Your task to perform on an android device: check battery use Image 0: 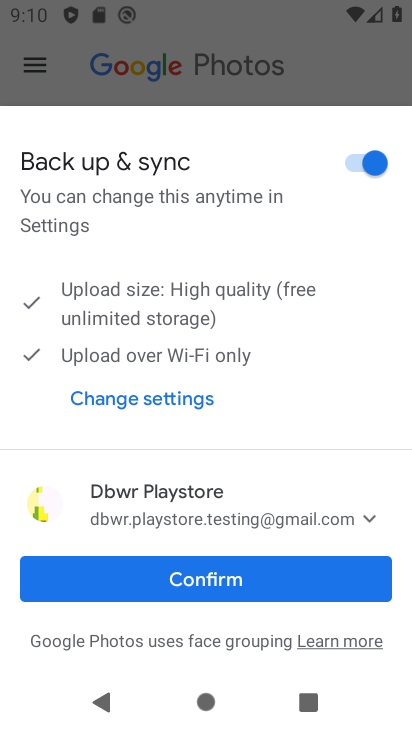
Step 0: press home button
Your task to perform on an android device: check battery use Image 1: 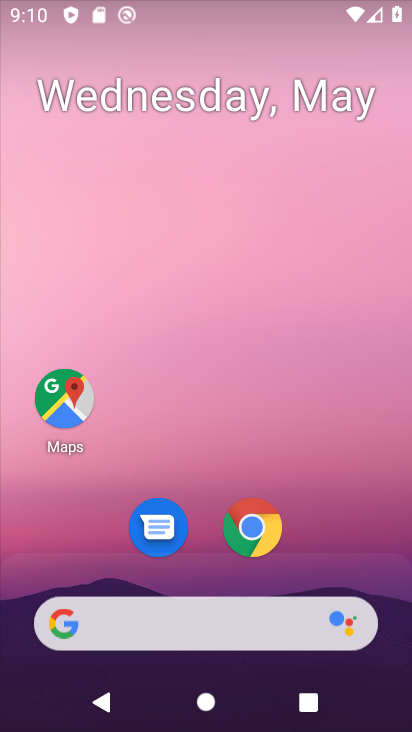
Step 1: drag from (376, 514) to (276, 261)
Your task to perform on an android device: check battery use Image 2: 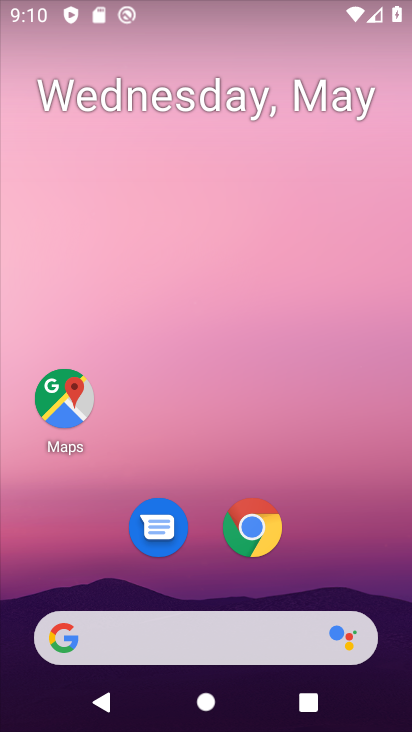
Step 2: drag from (229, 424) to (311, 3)
Your task to perform on an android device: check battery use Image 3: 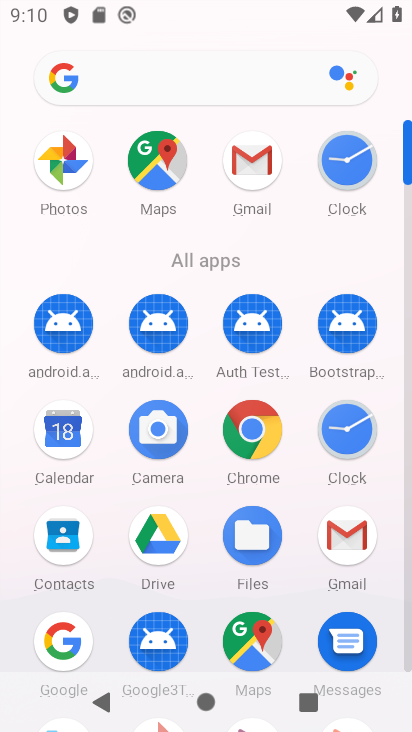
Step 3: click (402, 665)
Your task to perform on an android device: check battery use Image 4: 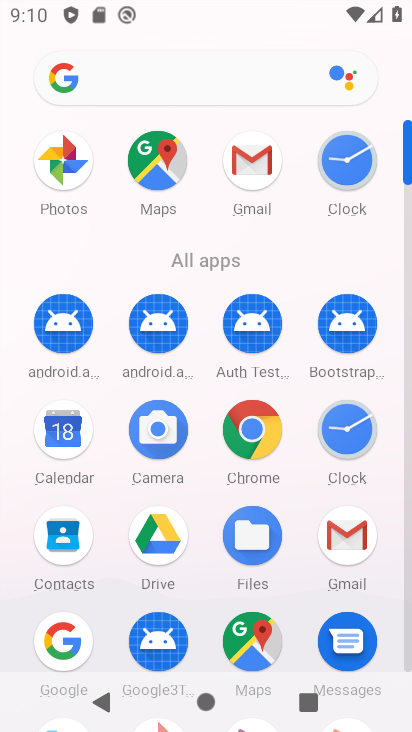
Step 4: click (404, 665)
Your task to perform on an android device: check battery use Image 5: 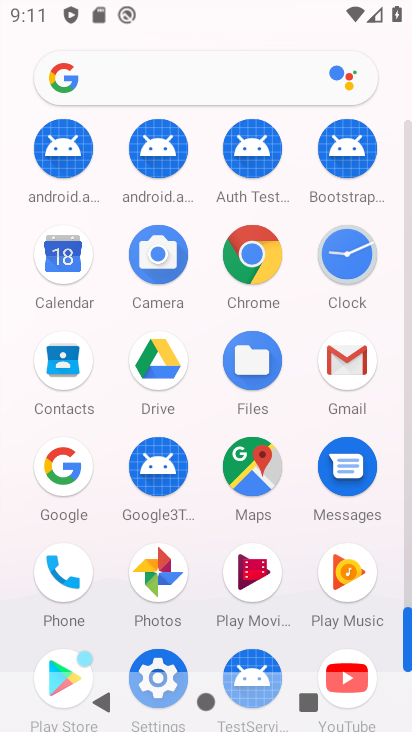
Step 5: drag from (404, 644) to (386, 731)
Your task to perform on an android device: check battery use Image 6: 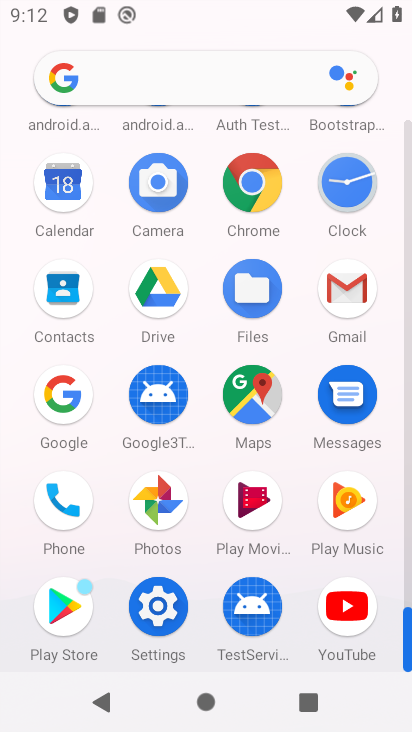
Step 6: click (151, 581)
Your task to perform on an android device: check battery use Image 7: 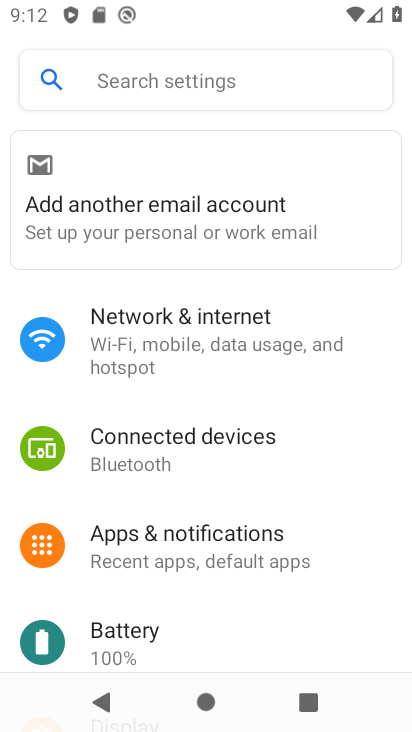
Step 7: click (135, 644)
Your task to perform on an android device: check battery use Image 8: 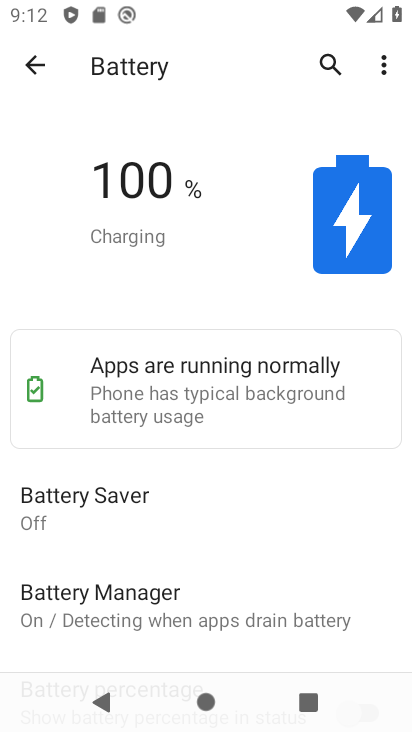
Step 8: task complete